Your task to perform on an android device: turn notification dots on Image 0: 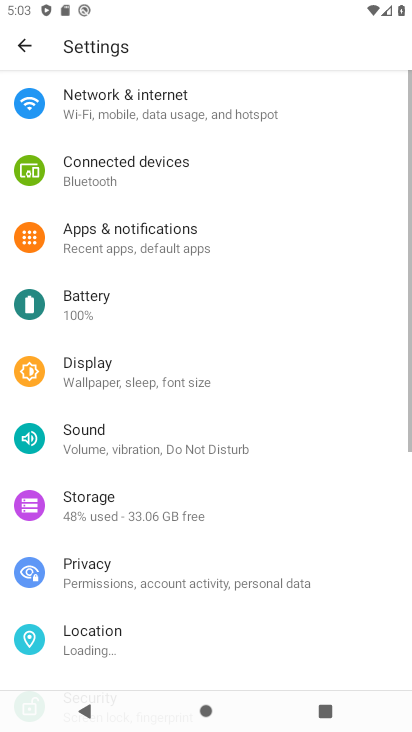
Step 0: click (133, 242)
Your task to perform on an android device: turn notification dots on Image 1: 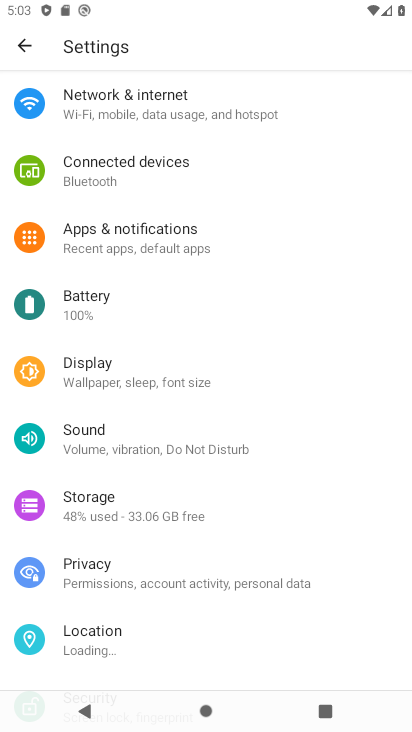
Step 1: click (181, 236)
Your task to perform on an android device: turn notification dots on Image 2: 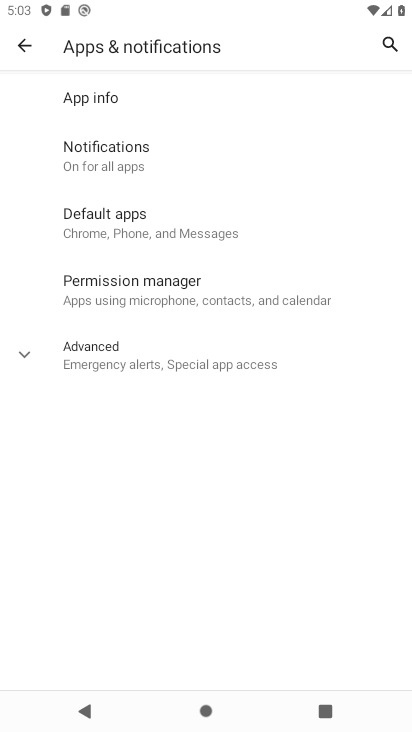
Step 2: click (115, 157)
Your task to perform on an android device: turn notification dots on Image 3: 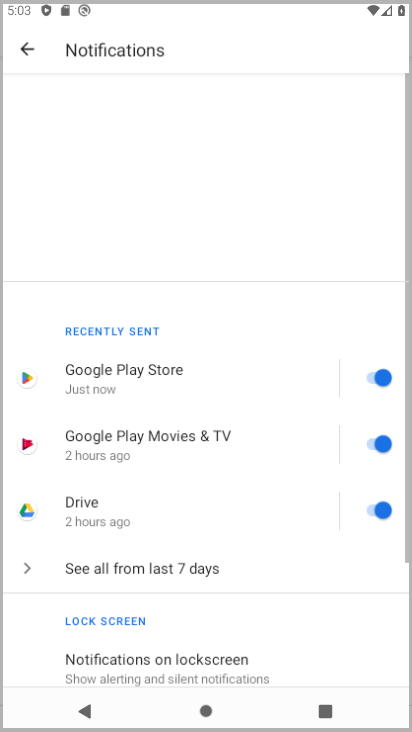
Step 3: click (128, 162)
Your task to perform on an android device: turn notification dots on Image 4: 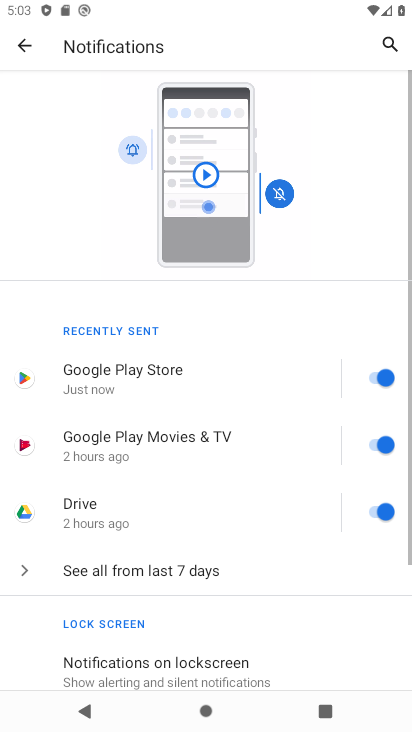
Step 4: drag from (249, 665) to (259, 223)
Your task to perform on an android device: turn notification dots on Image 5: 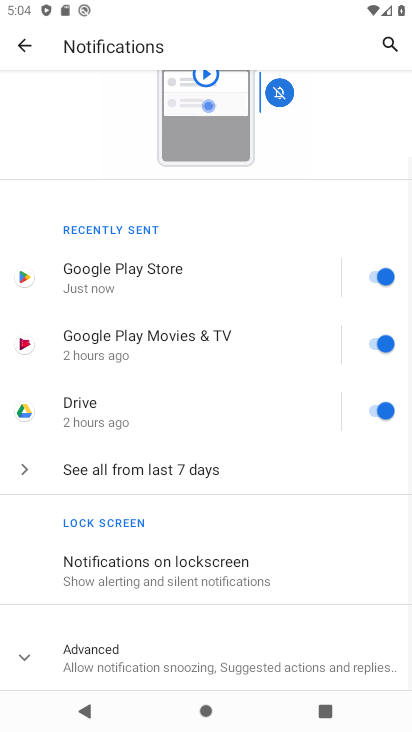
Step 5: click (156, 658)
Your task to perform on an android device: turn notification dots on Image 6: 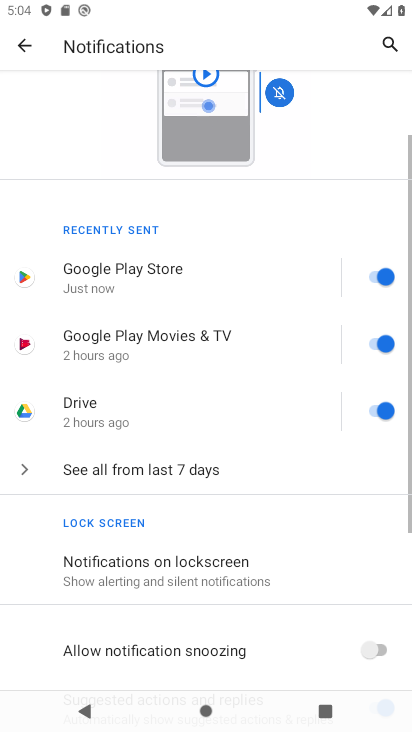
Step 6: task complete